Your task to perform on an android device: set the stopwatch Image 0: 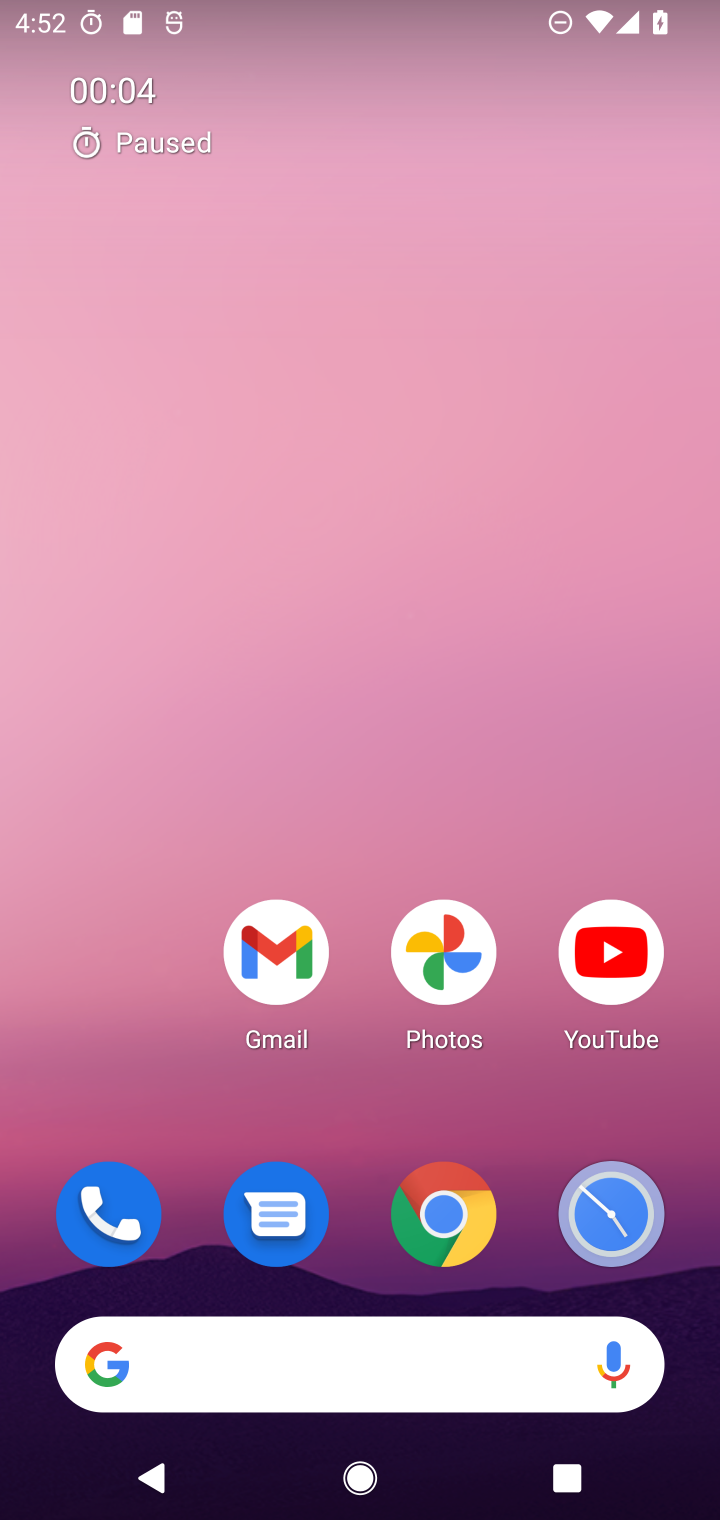
Step 0: click (605, 1225)
Your task to perform on an android device: set the stopwatch Image 1: 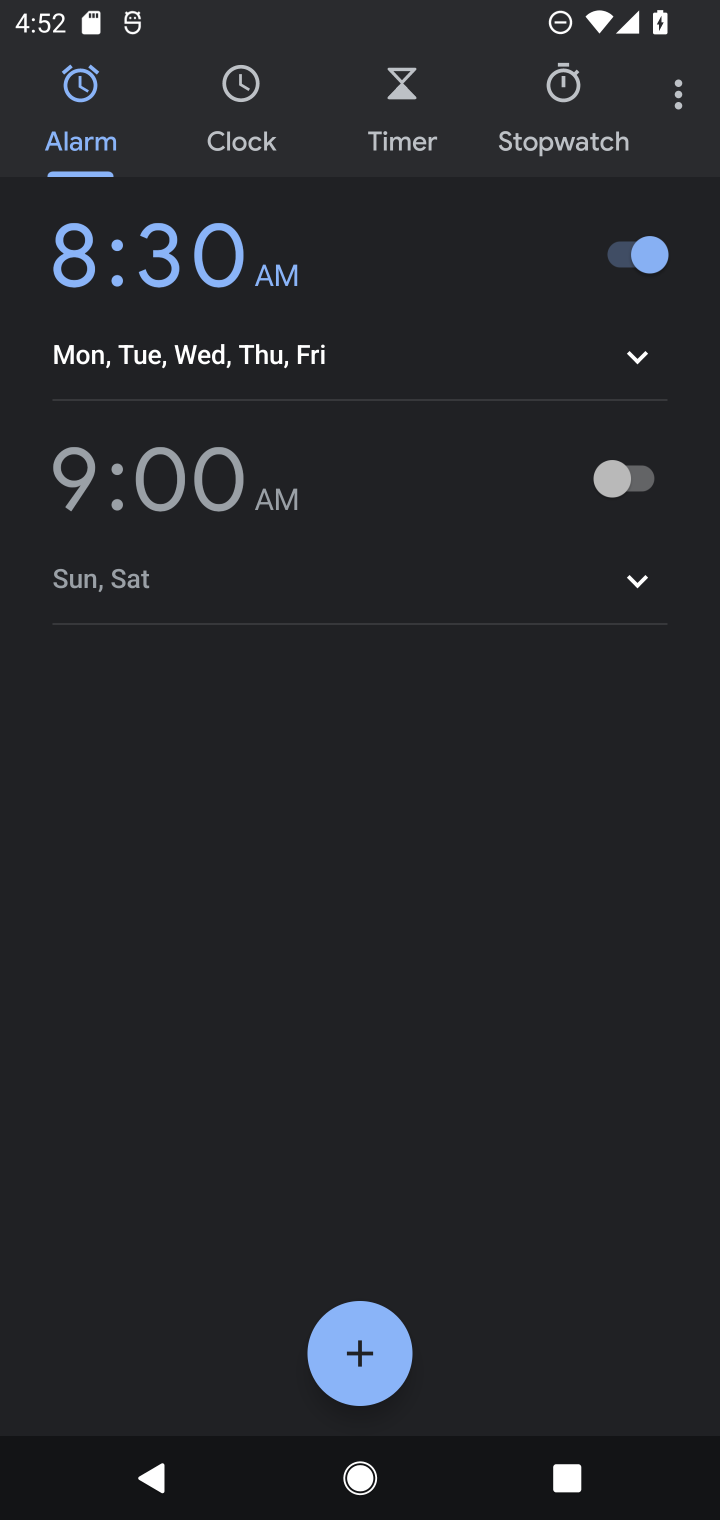
Step 1: click (538, 105)
Your task to perform on an android device: set the stopwatch Image 2: 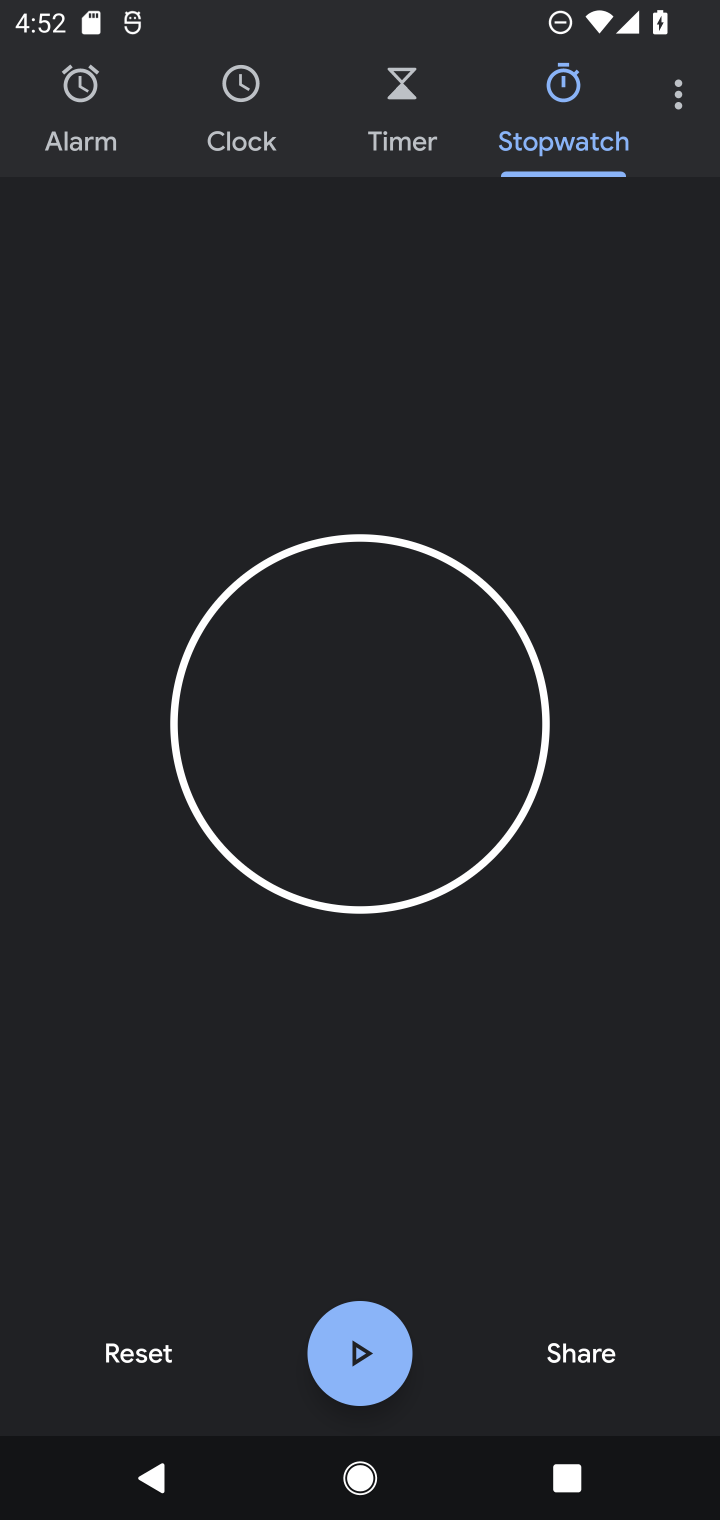
Step 2: click (137, 1358)
Your task to perform on an android device: set the stopwatch Image 3: 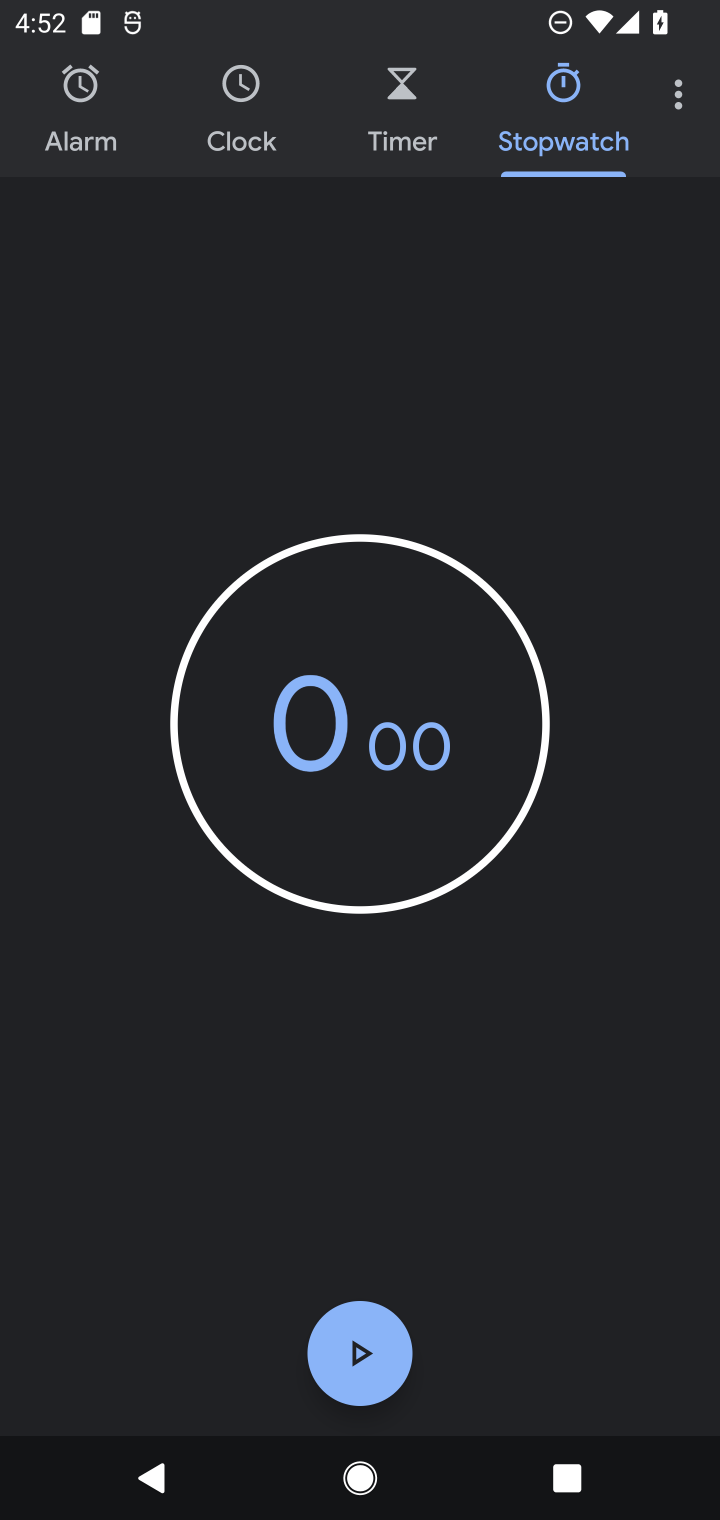
Step 3: click (359, 1349)
Your task to perform on an android device: set the stopwatch Image 4: 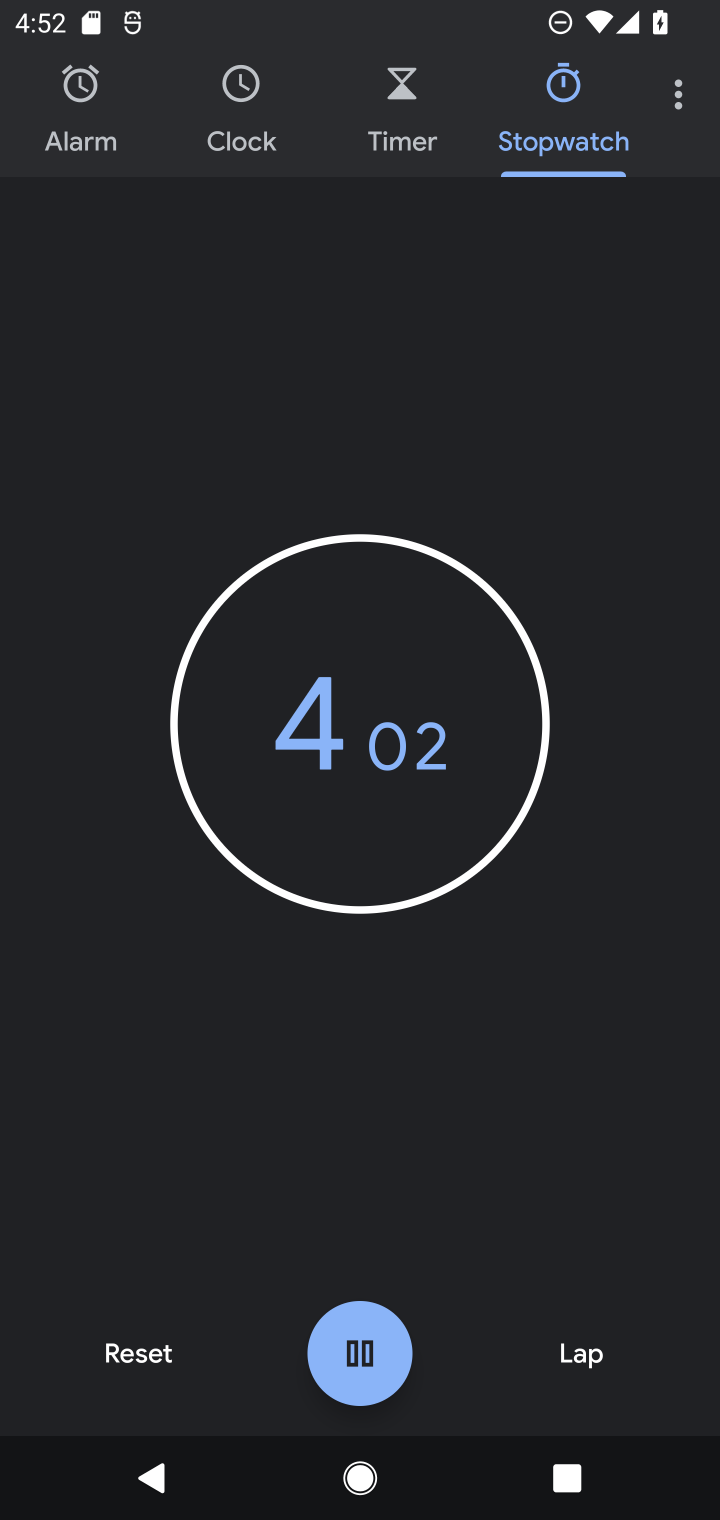
Step 4: click (359, 1349)
Your task to perform on an android device: set the stopwatch Image 5: 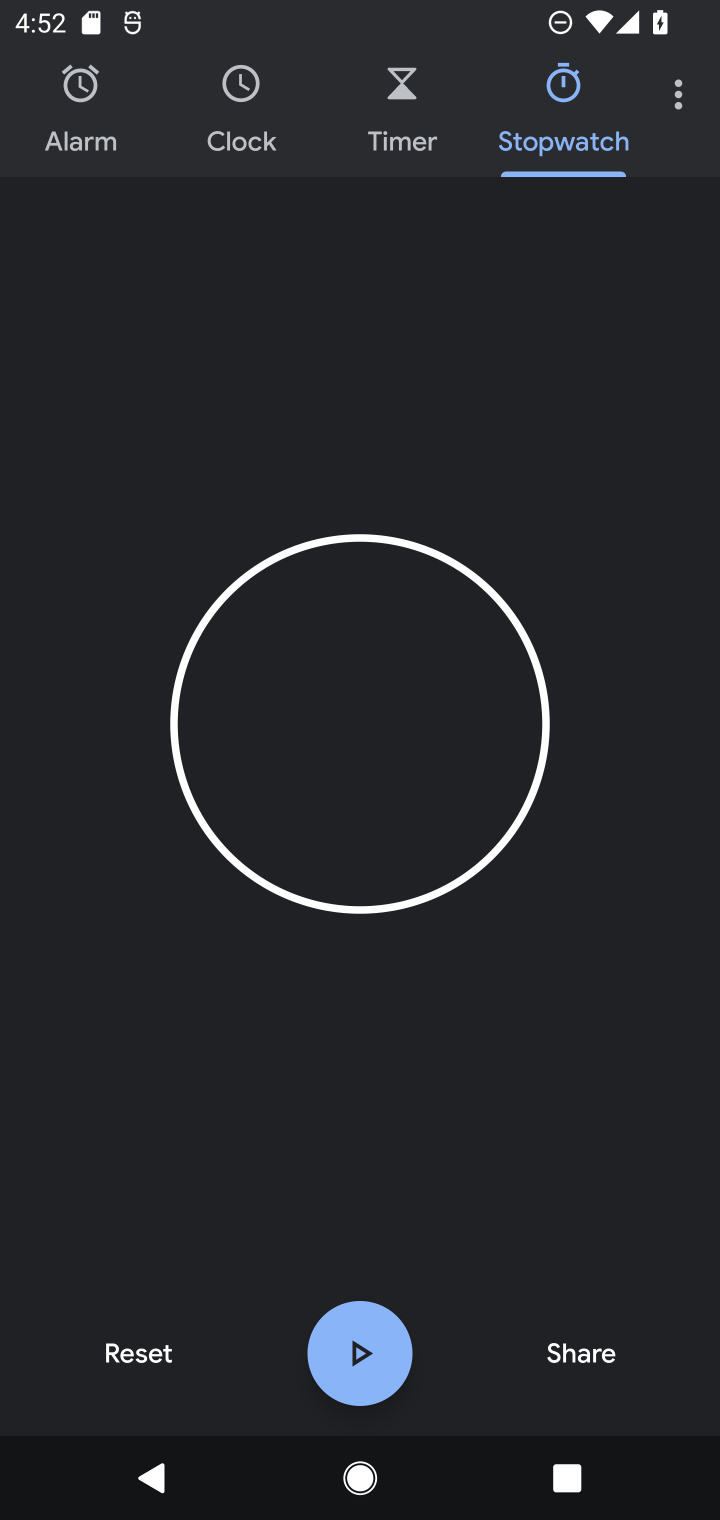
Step 5: task complete